Your task to perform on an android device: Show me the alarms in the clock app Image 0: 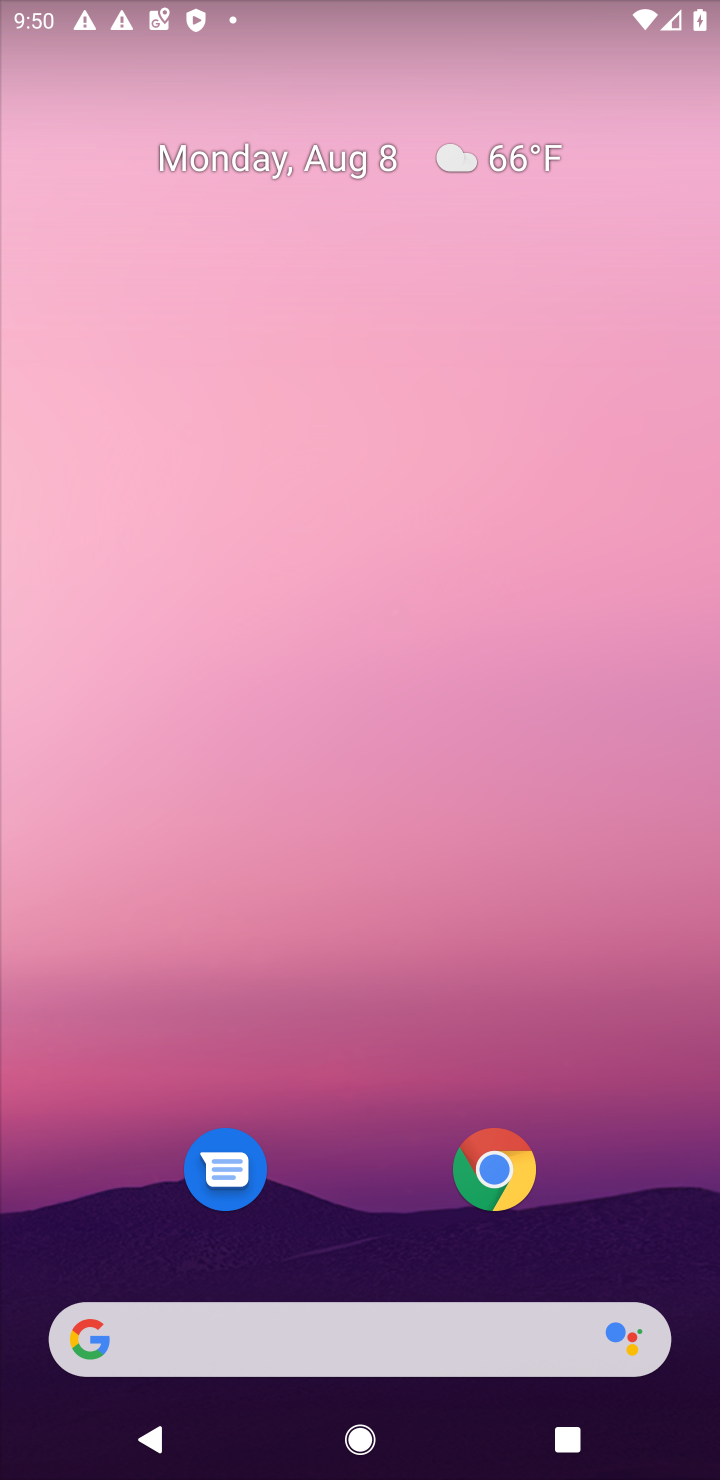
Step 0: drag from (349, 986) to (519, 114)
Your task to perform on an android device: Show me the alarms in the clock app Image 1: 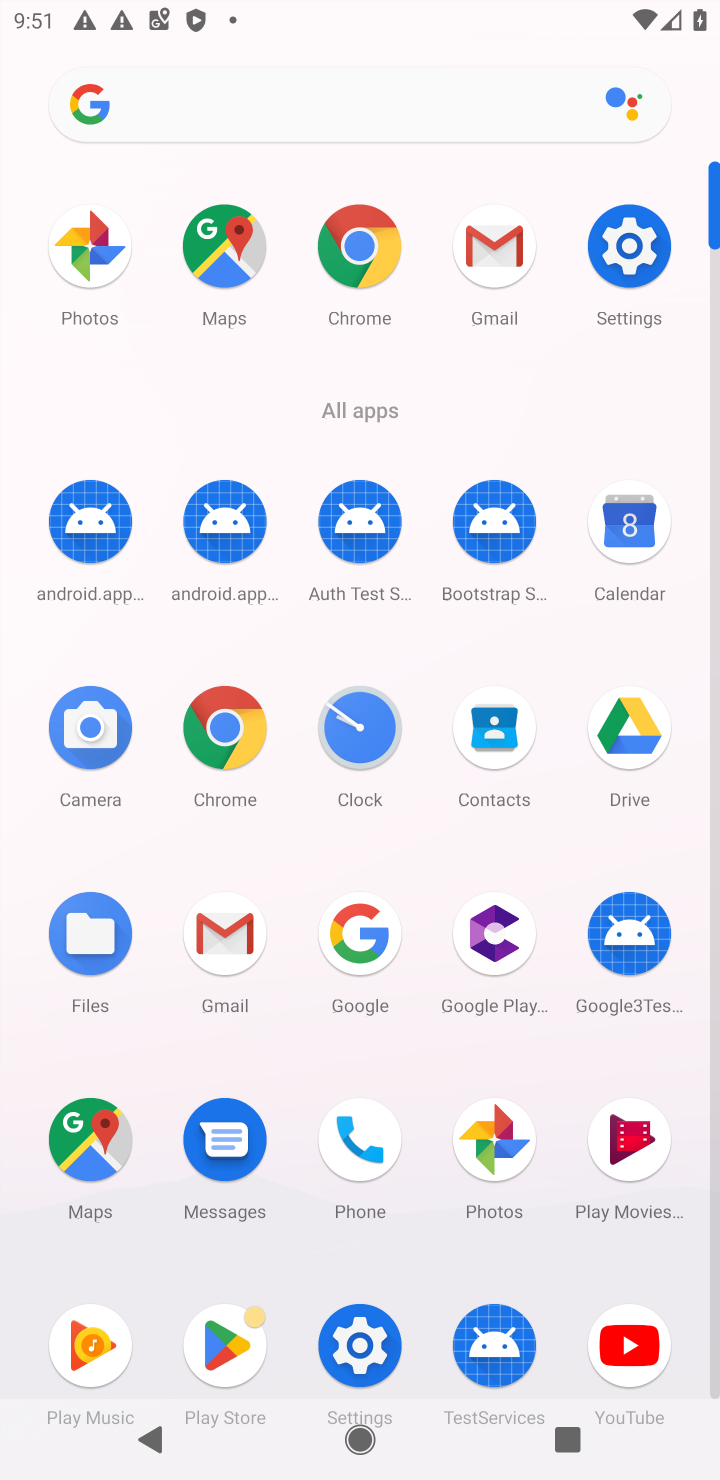
Step 1: click (352, 724)
Your task to perform on an android device: Show me the alarms in the clock app Image 2: 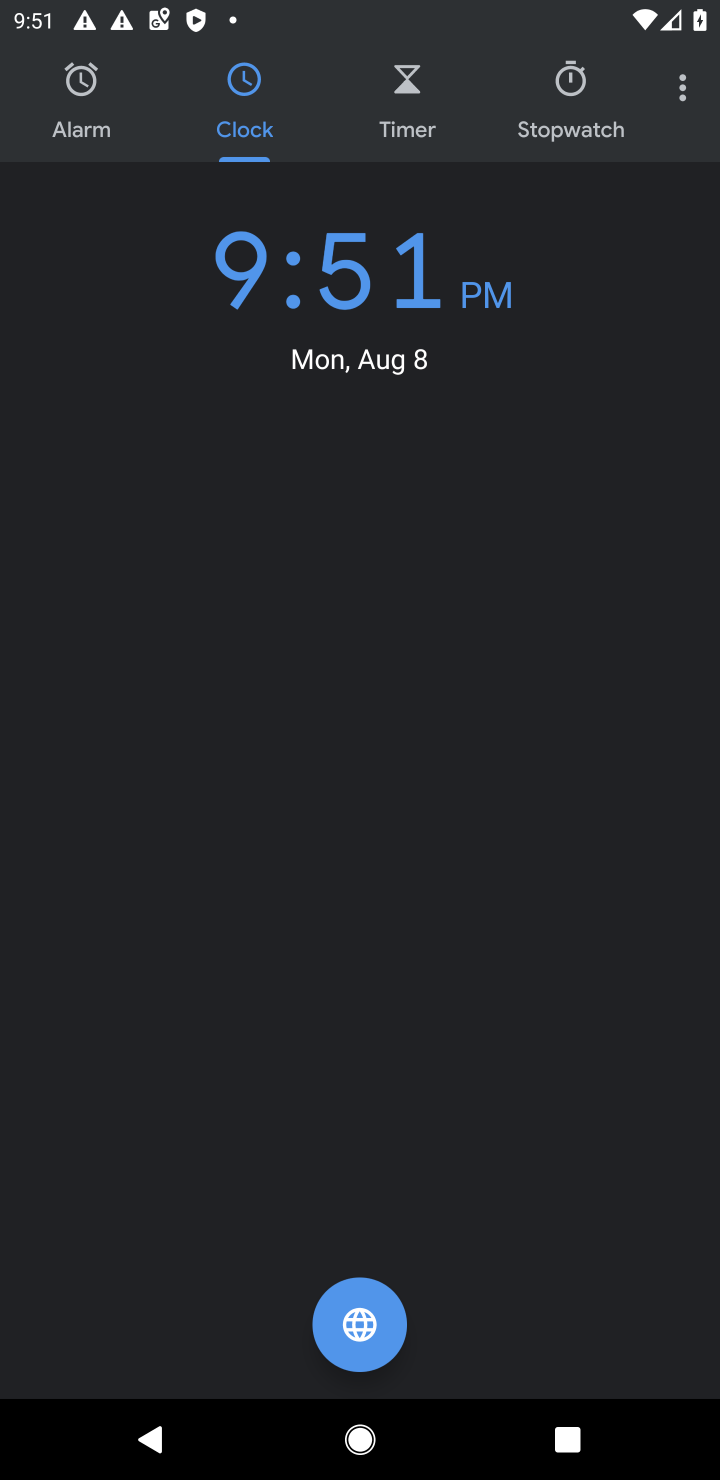
Step 2: click (78, 100)
Your task to perform on an android device: Show me the alarms in the clock app Image 3: 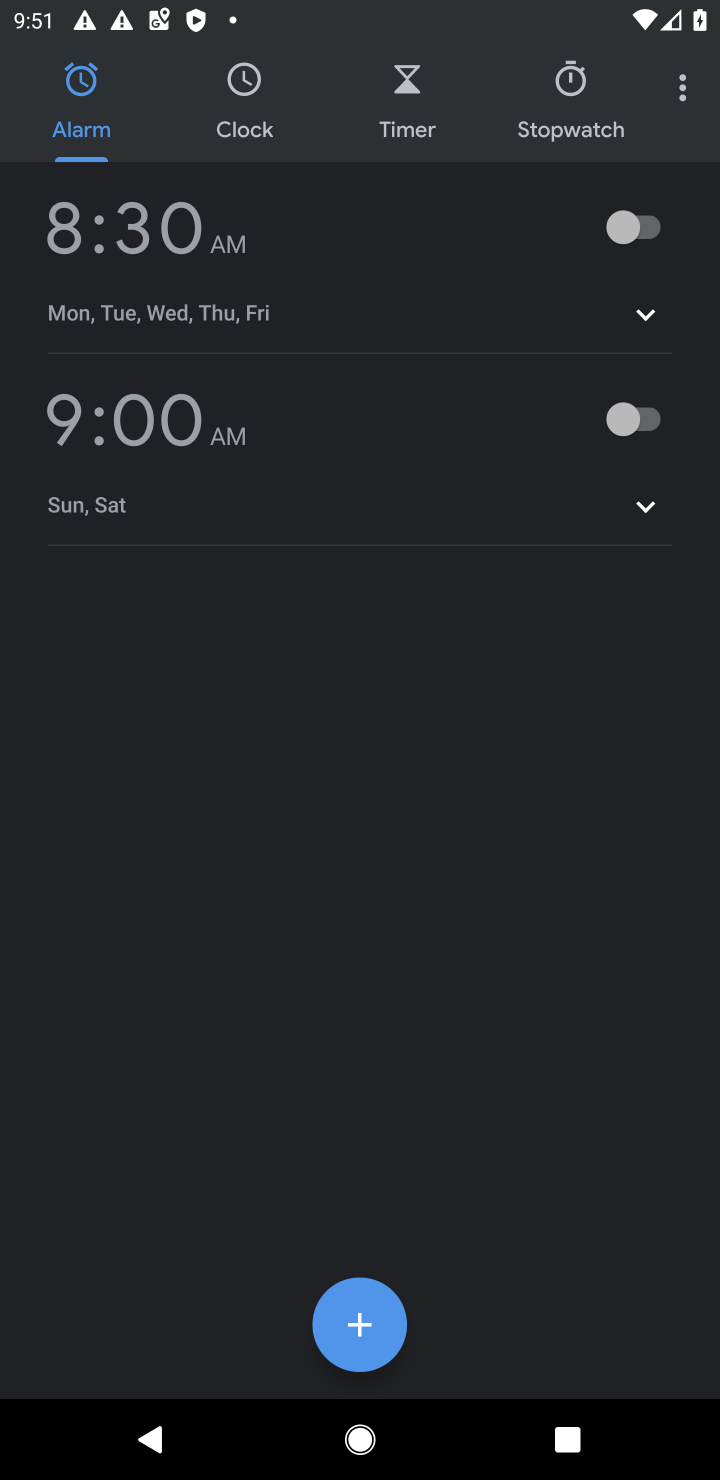
Step 3: click (659, 227)
Your task to perform on an android device: Show me the alarms in the clock app Image 4: 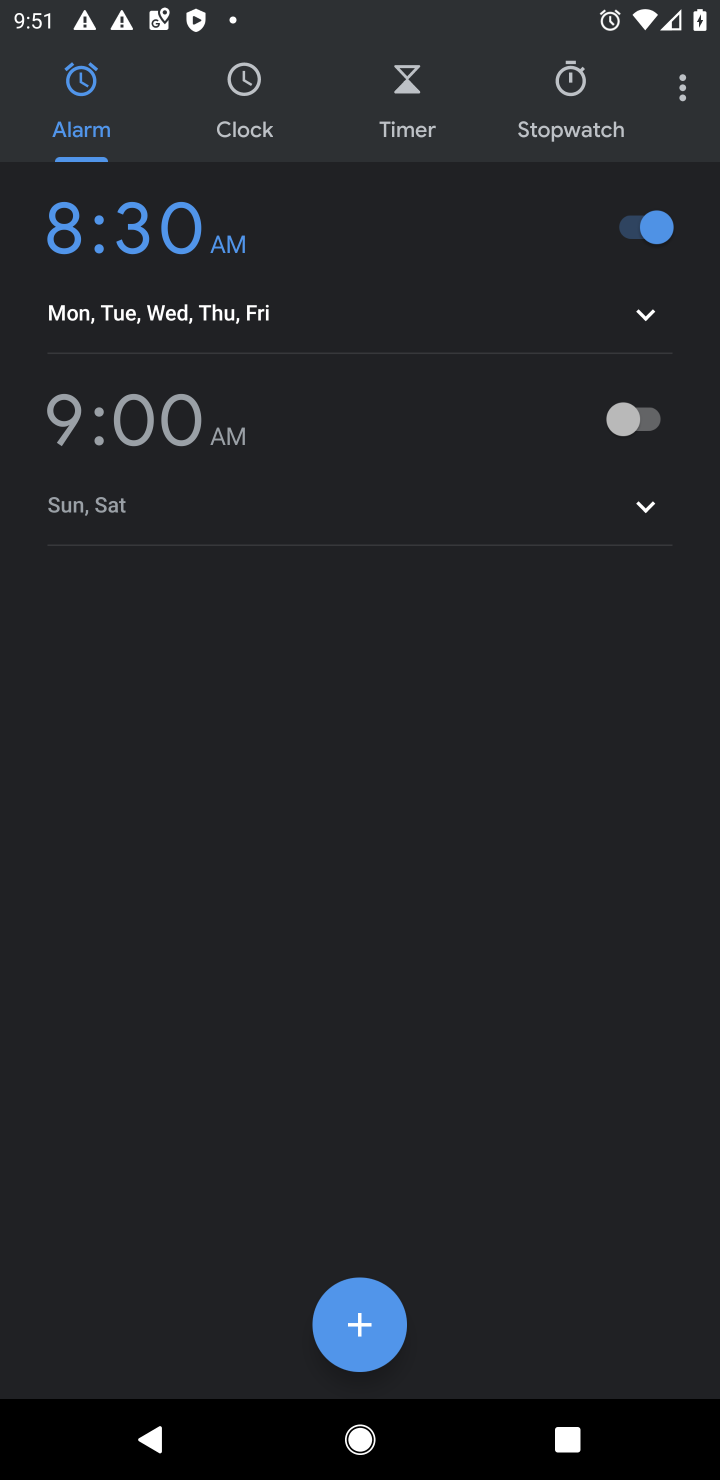
Step 4: task complete